Your task to perform on an android device: toggle wifi Image 0: 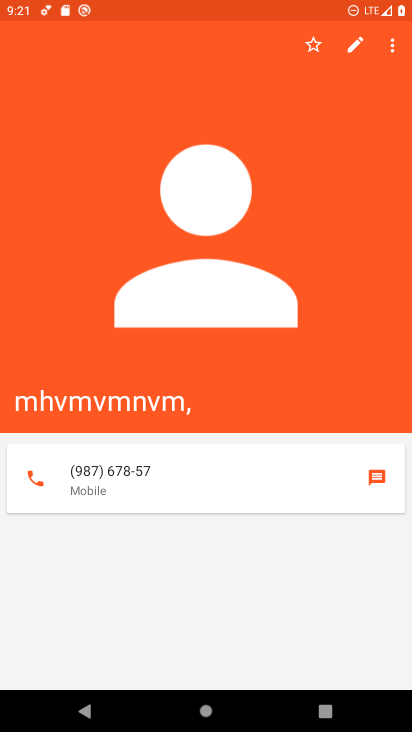
Step 0: press home button
Your task to perform on an android device: toggle wifi Image 1: 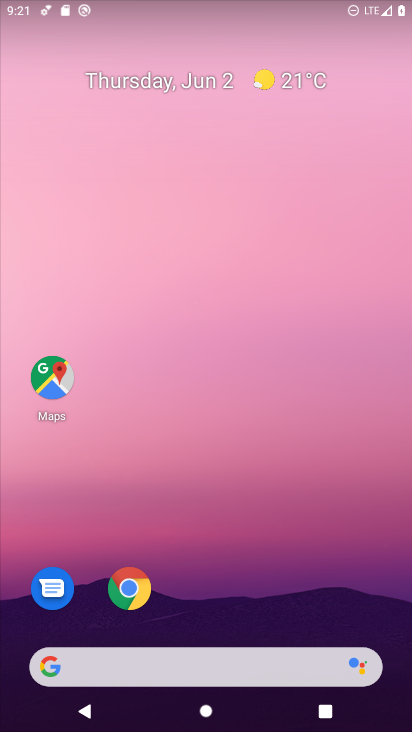
Step 1: drag from (222, 661) to (214, 238)
Your task to perform on an android device: toggle wifi Image 2: 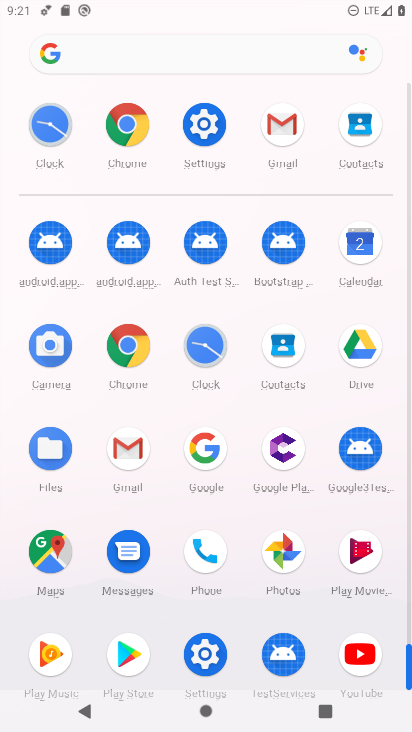
Step 2: click (194, 127)
Your task to perform on an android device: toggle wifi Image 3: 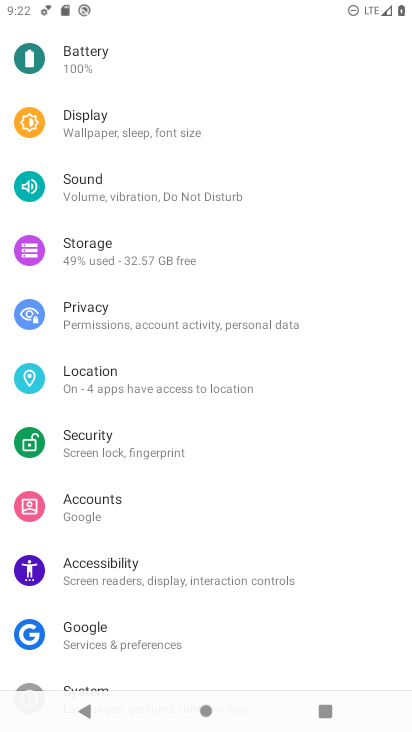
Step 3: drag from (139, 318) to (136, 562)
Your task to perform on an android device: toggle wifi Image 4: 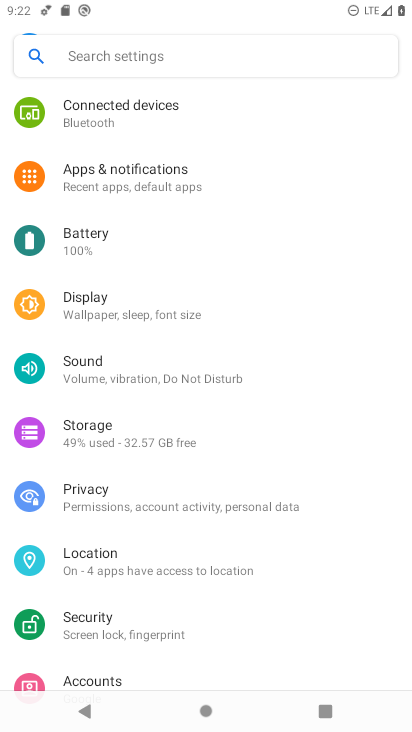
Step 4: drag from (168, 233) to (164, 509)
Your task to perform on an android device: toggle wifi Image 5: 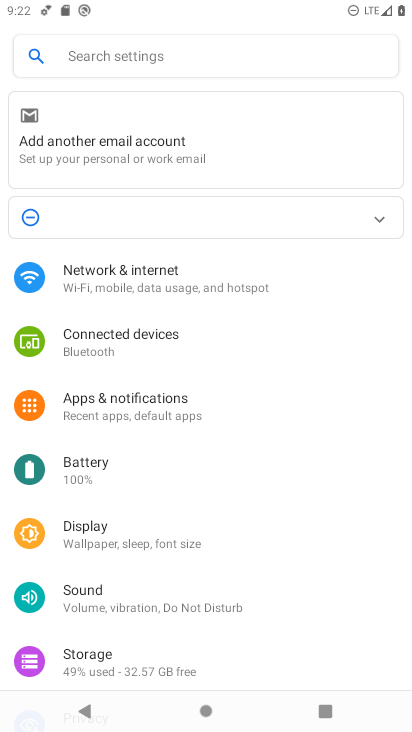
Step 5: drag from (156, 230) to (161, 498)
Your task to perform on an android device: toggle wifi Image 6: 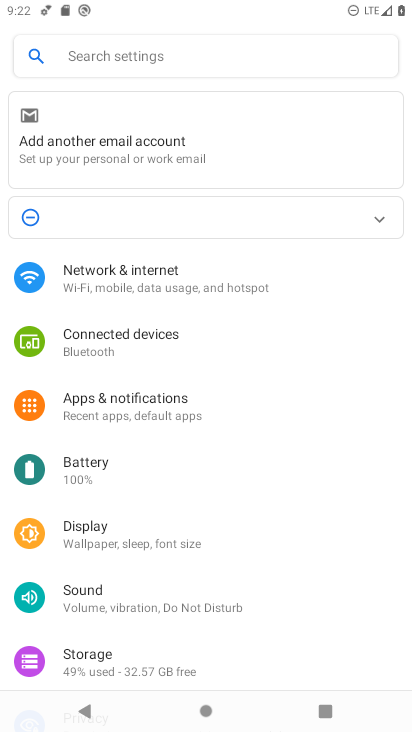
Step 6: click (212, 274)
Your task to perform on an android device: toggle wifi Image 7: 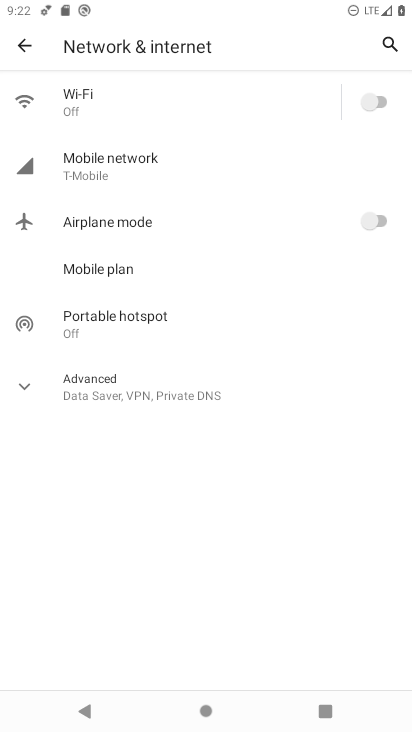
Step 7: click (350, 115)
Your task to perform on an android device: toggle wifi Image 8: 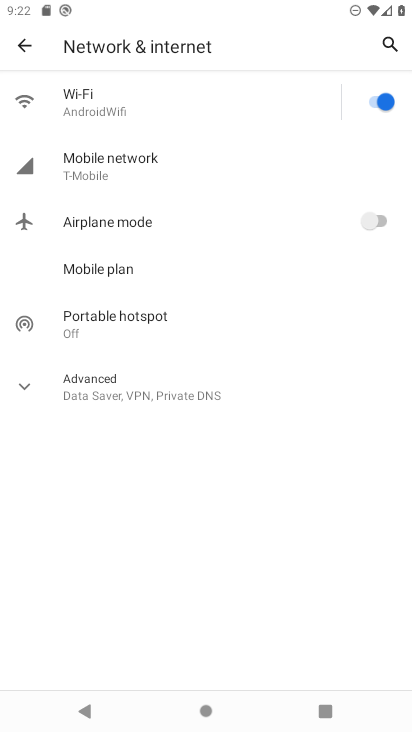
Step 8: task complete